Your task to perform on an android device: change the clock display to show seconds Image 0: 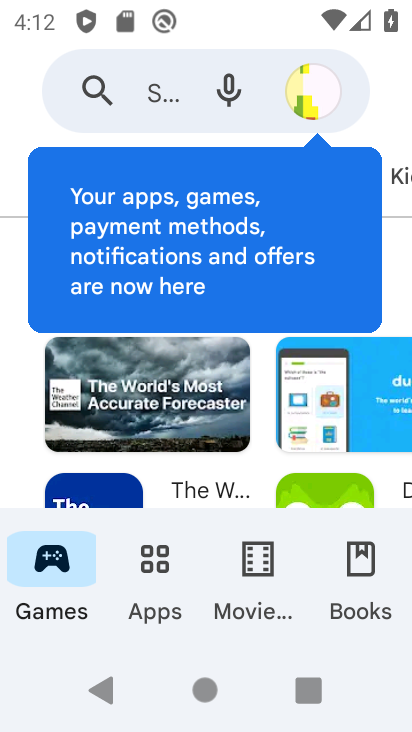
Step 0: press home button
Your task to perform on an android device: change the clock display to show seconds Image 1: 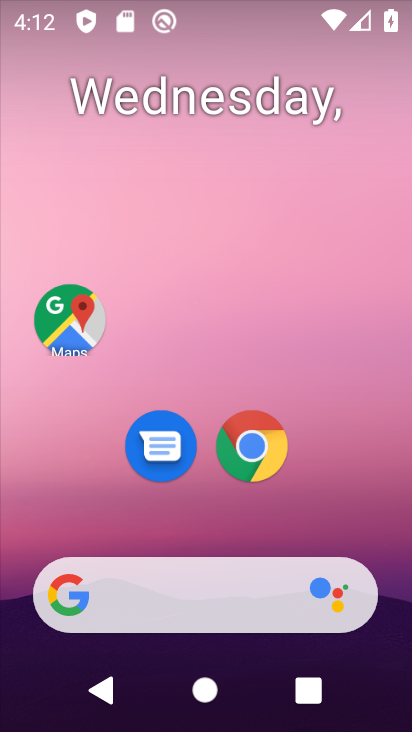
Step 1: drag from (206, 712) to (193, 119)
Your task to perform on an android device: change the clock display to show seconds Image 2: 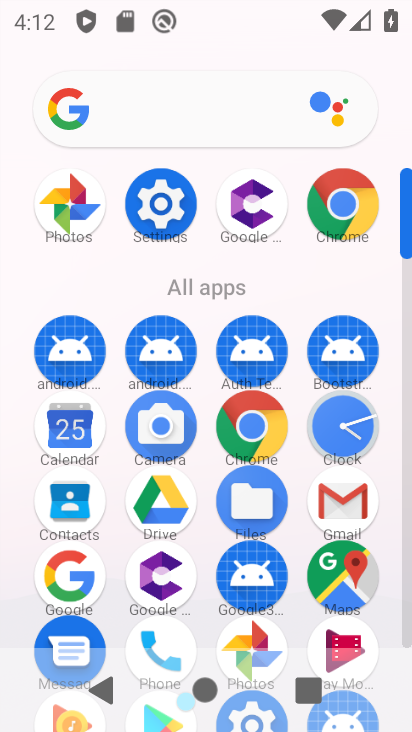
Step 2: click (350, 430)
Your task to perform on an android device: change the clock display to show seconds Image 3: 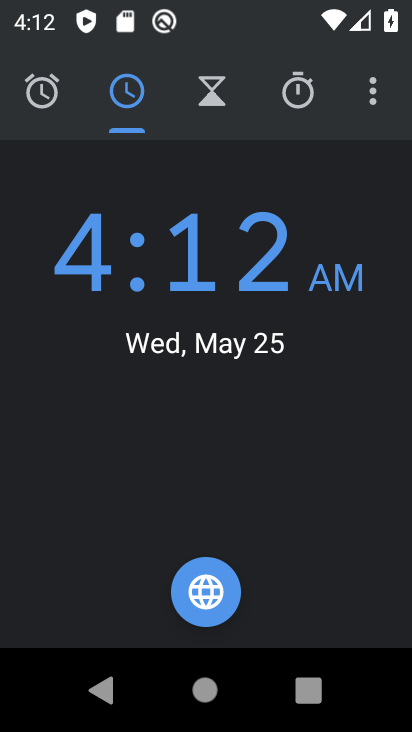
Step 3: click (374, 102)
Your task to perform on an android device: change the clock display to show seconds Image 4: 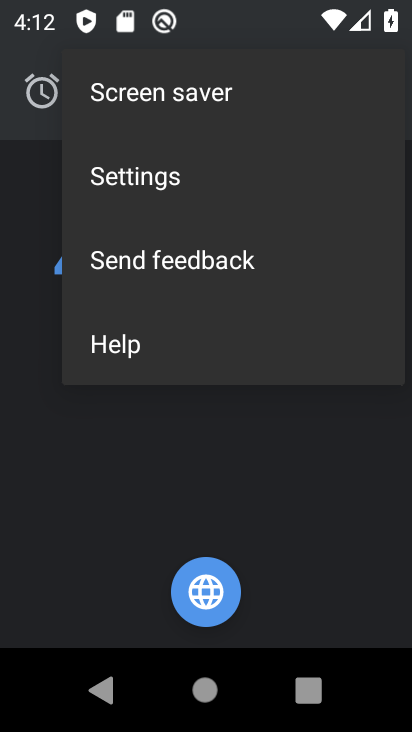
Step 4: click (131, 179)
Your task to perform on an android device: change the clock display to show seconds Image 5: 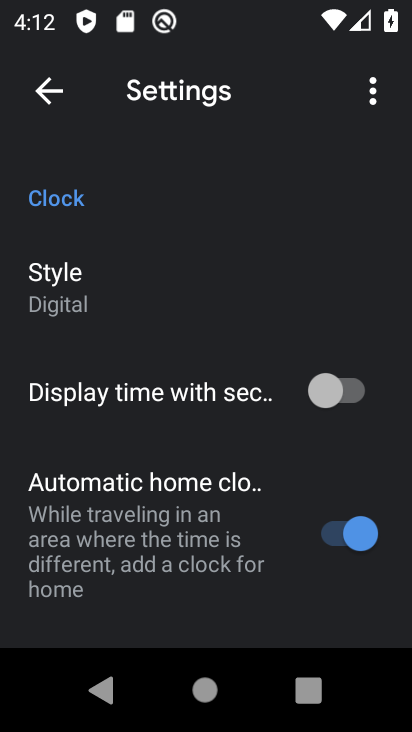
Step 5: click (359, 389)
Your task to perform on an android device: change the clock display to show seconds Image 6: 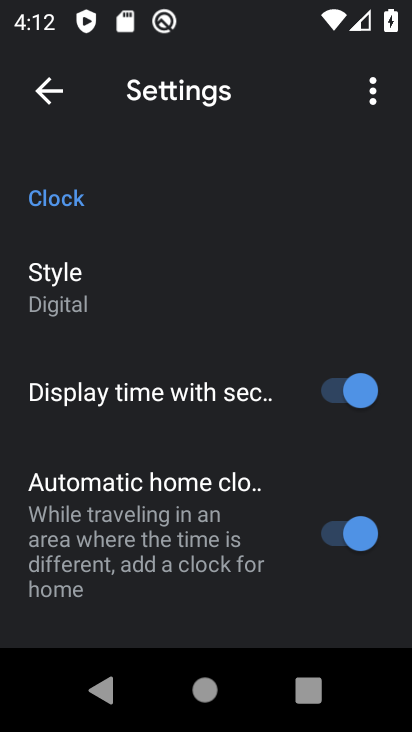
Step 6: task complete